Your task to perform on an android device: What's the weather going to be tomorrow? Image 0: 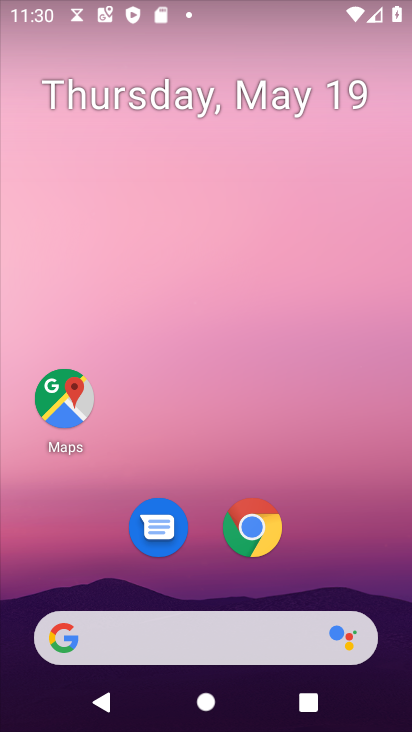
Step 0: click (196, 638)
Your task to perform on an android device: What's the weather going to be tomorrow? Image 1: 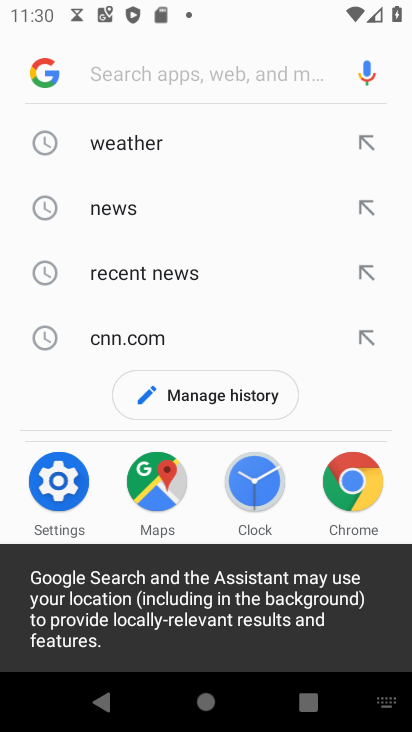
Step 1: click (153, 144)
Your task to perform on an android device: What's the weather going to be tomorrow? Image 2: 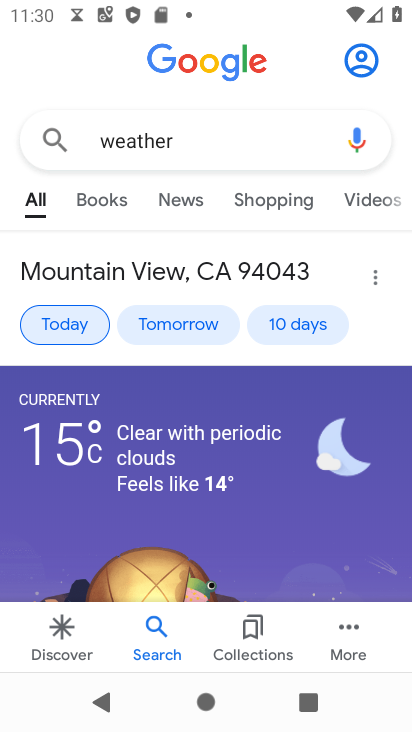
Step 2: task complete